Your task to perform on an android device: Open Google Maps Image 0: 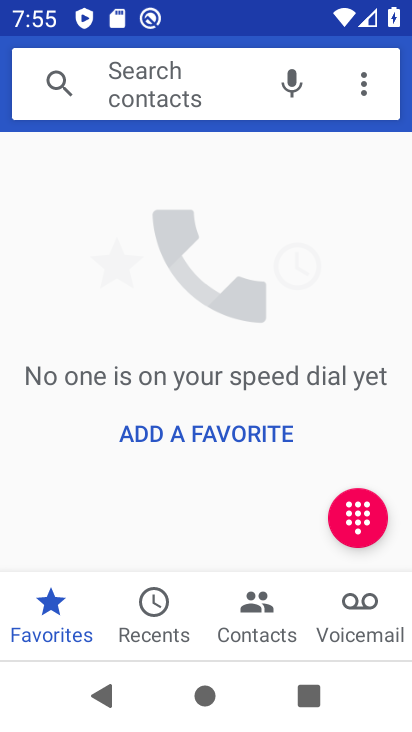
Step 0: press home button
Your task to perform on an android device: Open Google Maps Image 1: 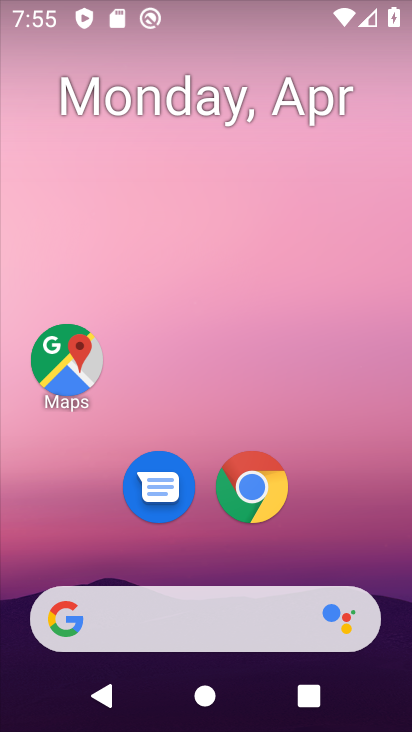
Step 1: drag from (330, 541) to (321, 33)
Your task to perform on an android device: Open Google Maps Image 2: 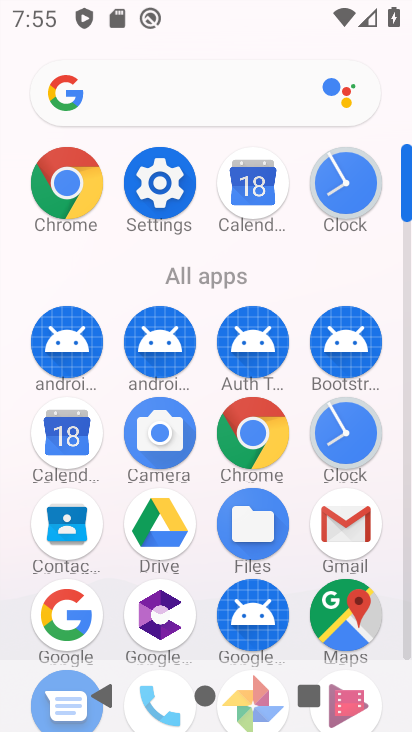
Step 2: drag from (206, 558) to (193, 105)
Your task to perform on an android device: Open Google Maps Image 3: 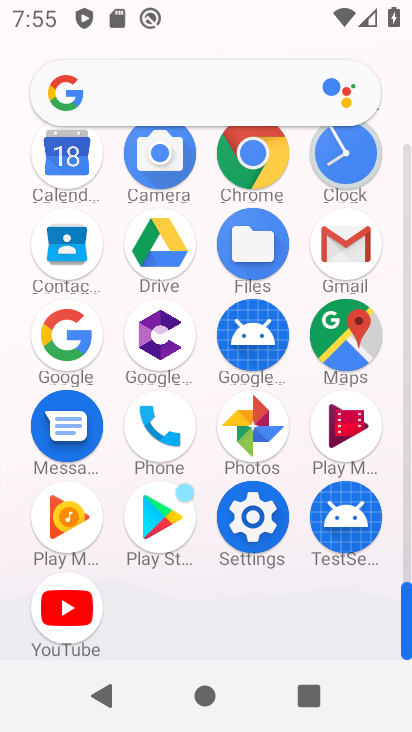
Step 3: click (342, 343)
Your task to perform on an android device: Open Google Maps Image 4: 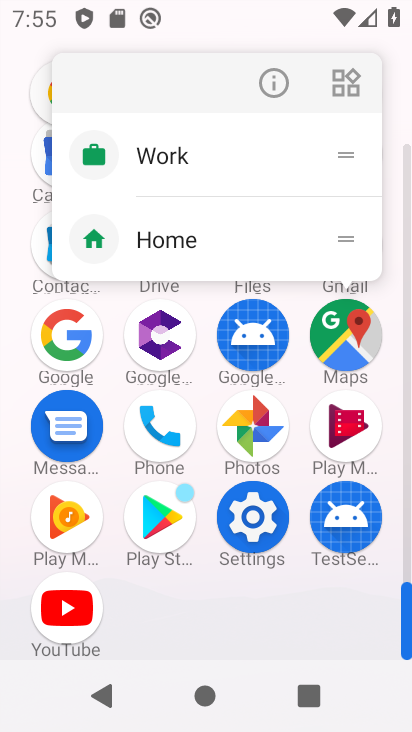
Step 4: click (342, 343)
Your task to perform on an android device: Open Google Maps Image 5: 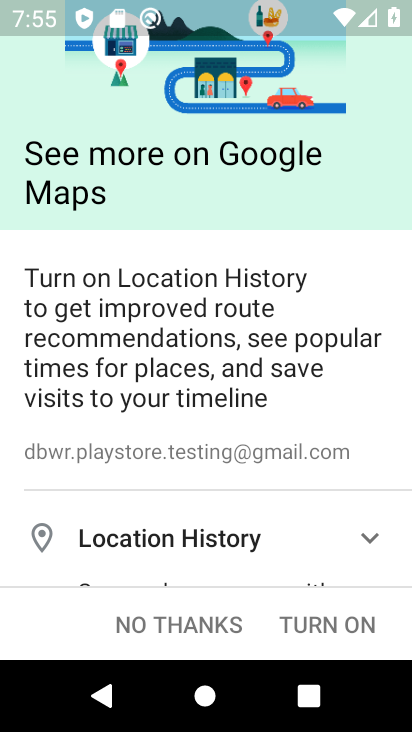
Step 5: click (163, 621)
Your task to perform on an android device: Open Google Maps Image 6: 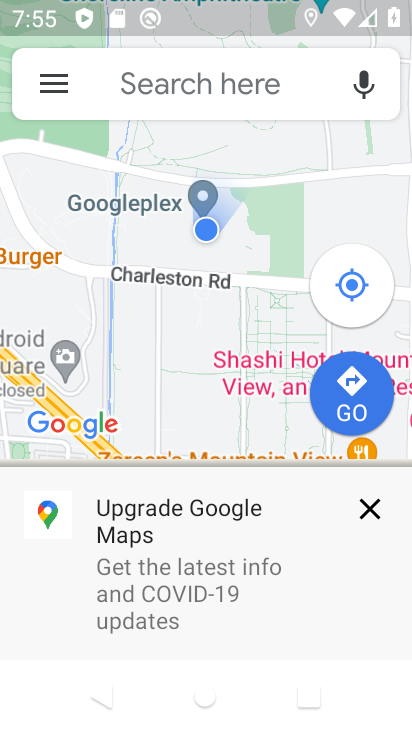
Step 6: task complete